Your task to perform on an android device: remove spam from my inbox in the gmail app Image 0: 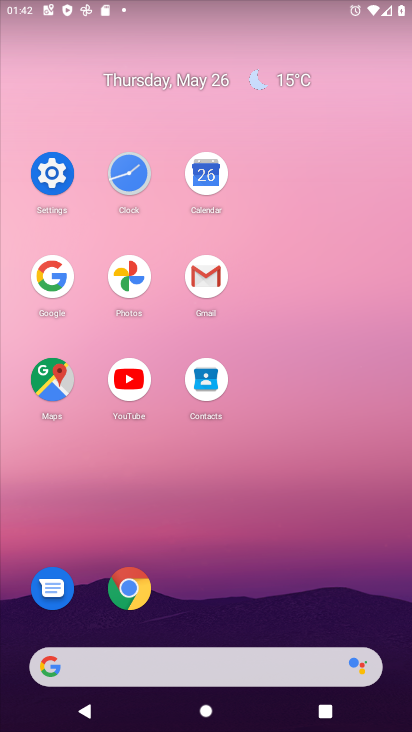
Step 0: drag from (89, 342) to (60, 360)
Your task to perform on an android device: remove spam from my inbox in the gmail app Image 1: 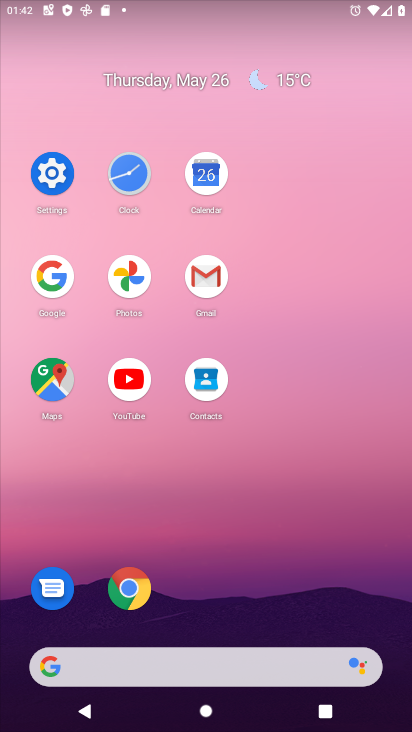
Step 1: click (205, 273)
Your task to perform on an android device: remove spam from my inbox in the gmail app Image 2: 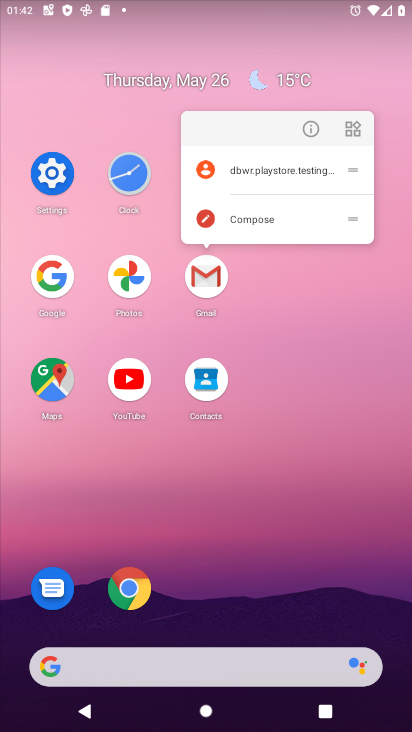
Step 2: click (205, 273)
Your task to perform on an android device: remove spam from my inbox in the gmail app Image 3: 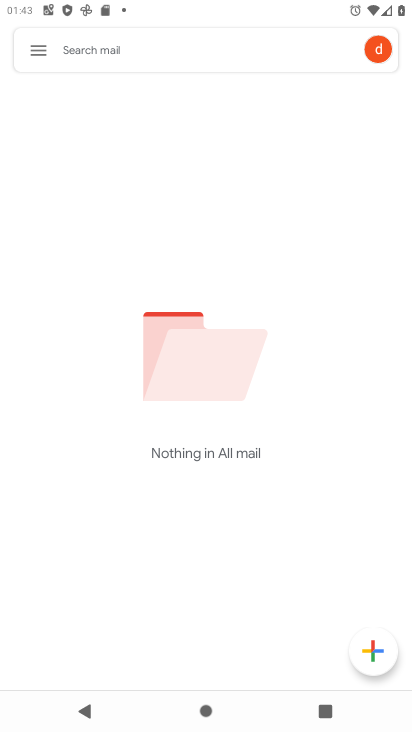
Step 3: click (39, 62)
Your task to perform on an android device: remove spam from my inbox in the gmail app Image 4: 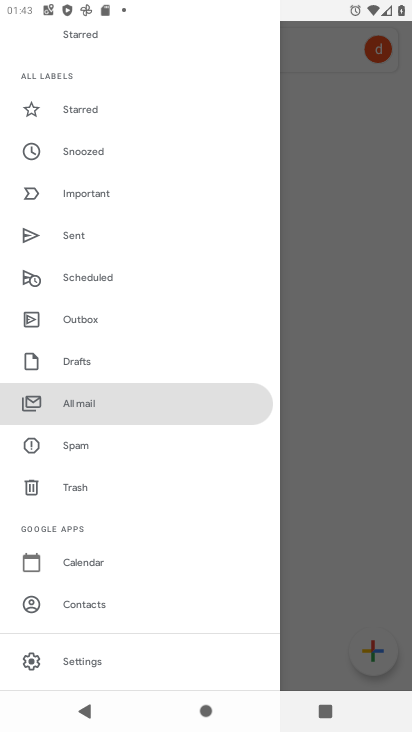
Step 4: click (83, 444)
Your task to perform on an android device: remove spam from my inbox in the gmail app Image 5: 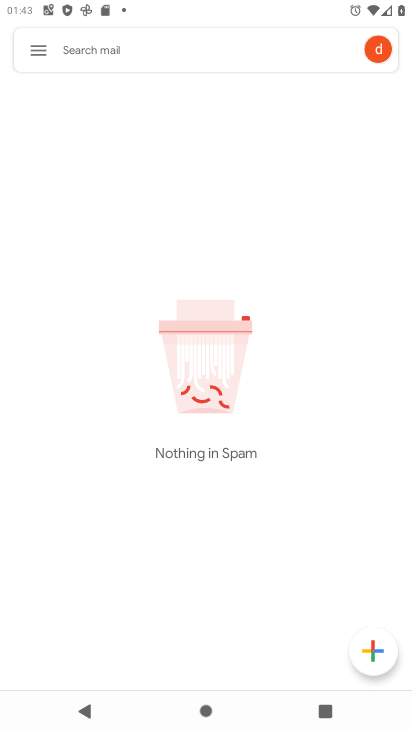
Step 5: task complete